Your task to perform on an android device: Go to privacy settings Image 0: 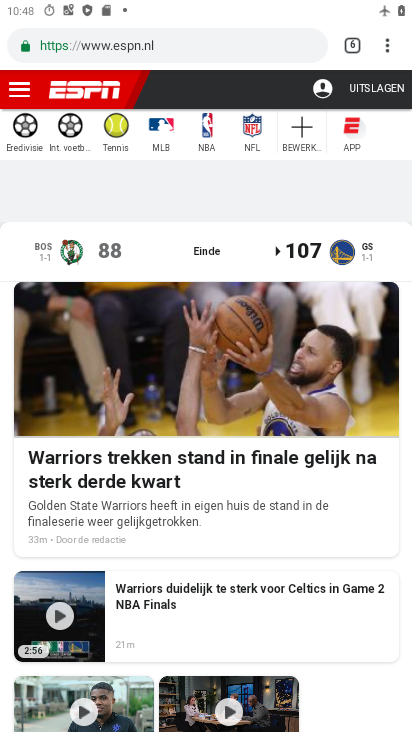
Step 0: press home button
Your task to perform on an android device: Go to privacy settings Image 1: 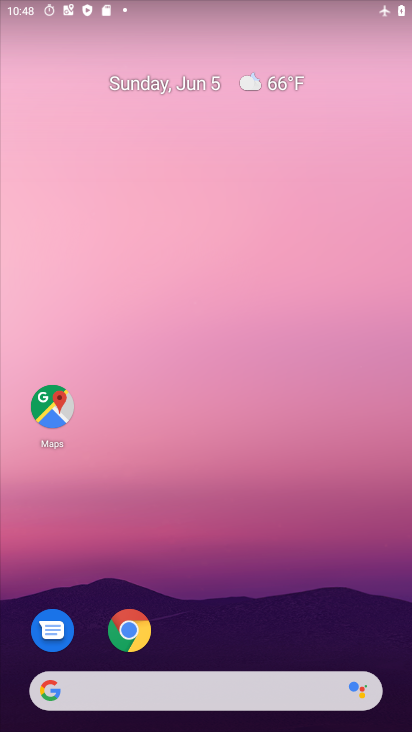
Step 1: drag from (227, 726) to (228, 54)
Your task to perform on an android device: Go to privacy settings Image 2: 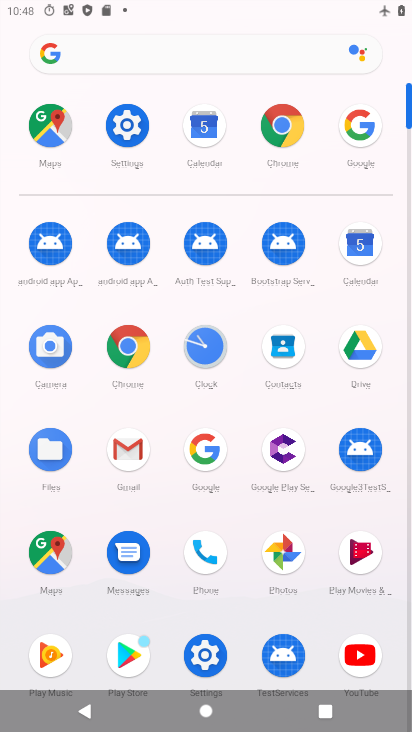
Step 2: click (121, 114)
Your task to perform on an android device: Go to privacy settings Image 3: 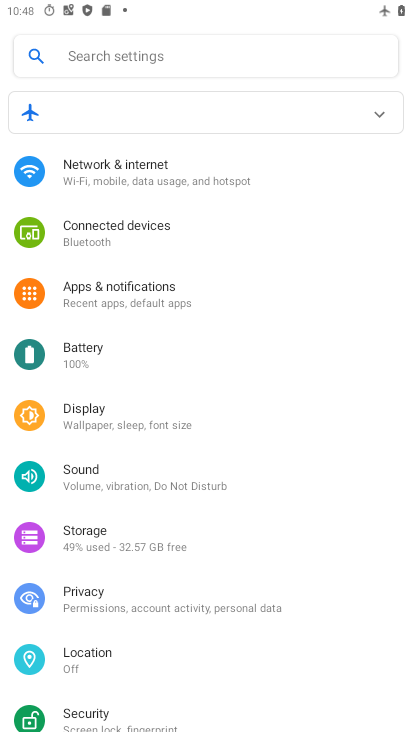
Step 3: click (86, 599)
Your task to perform on an android device: Go to privacy settings Image 4: 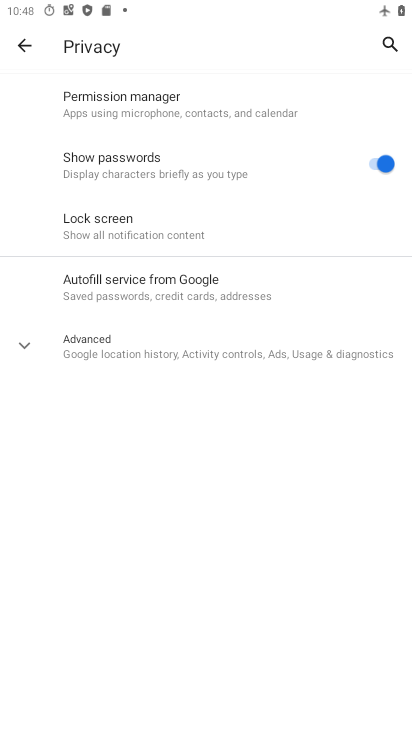
Step 4: task complete